Your task to perform on an android device: change notification settings in the gmail app Image 0: 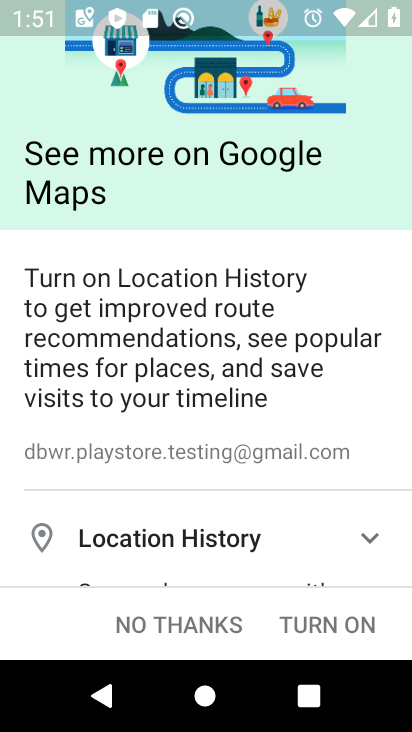
Step 0: press home button
Your task to perform on an android device: change notification settings in the gmail app Image 1: 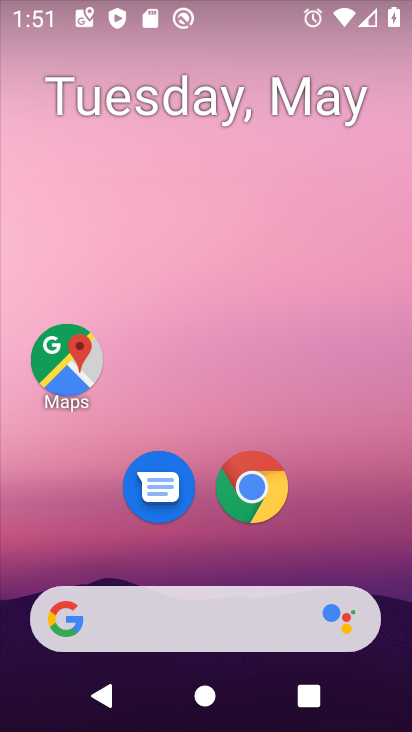
Step 1: drag from (364, 534) to (366, 108)
Your task to perform on an android device: change notification settings in the gmail app Image 2: 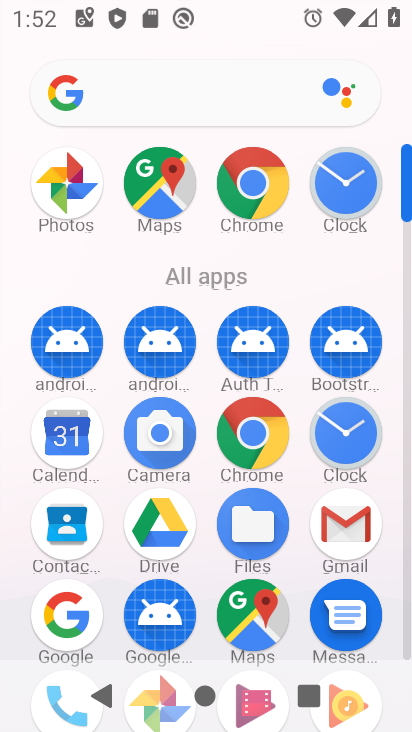
Step 2: click (341, 529)
Your task to perform on an android device: change notification settings in the gmail app Image 3: 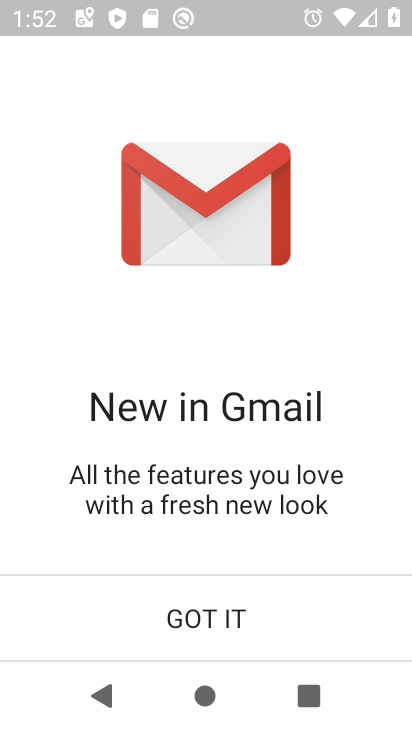
Step 3: click (245, 616)
Your task to perform on an android device: change notification settings in the gmail app Image 4: 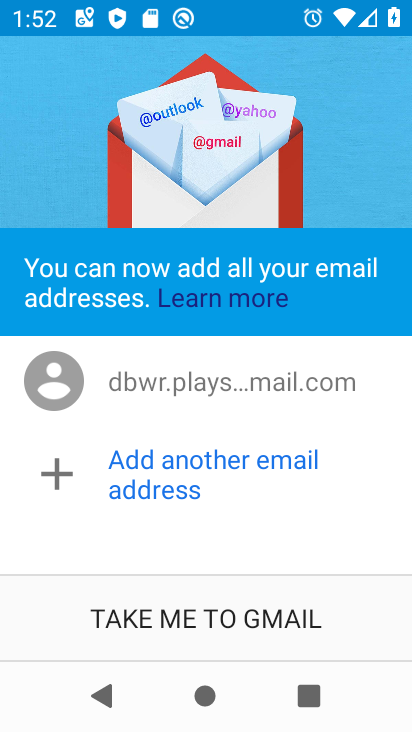
Step 4: click (257, 622)
Your task to perform on an android device: change notification settings in the gmail app Image 5: 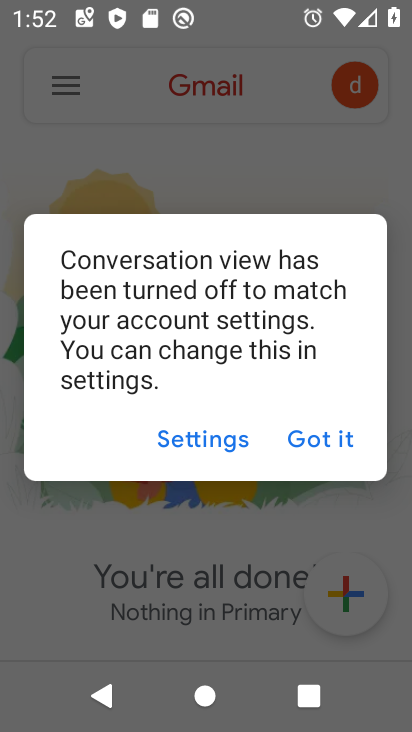
Step 5: click (310, 442)
Your task to perform on an android device: change notification settings in the gmail app Image 6: 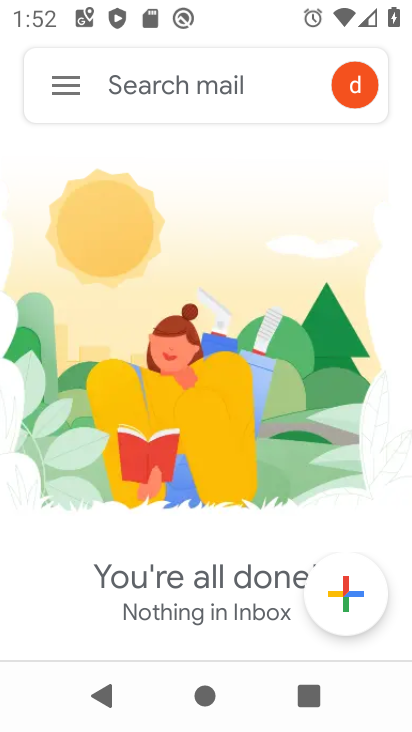
Step 6: click (74, 95)
Your task to perform on an android device: change notification settings in the gmail app Image 7: 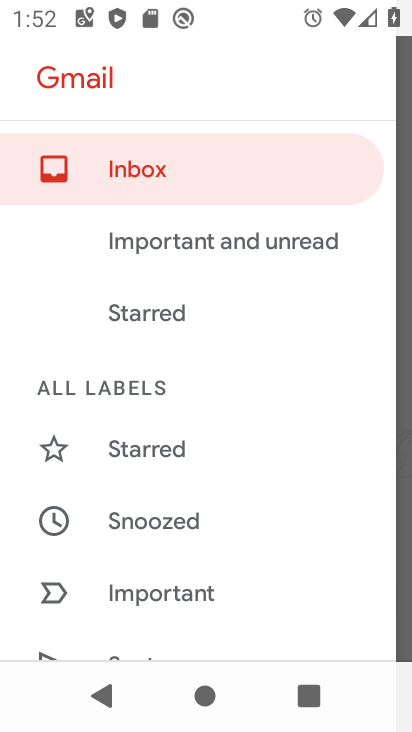
Step 7: drag from (307, 425) to (324, 342)
Your task to perform on an android device: change notification settings in the gmail app Image 8: 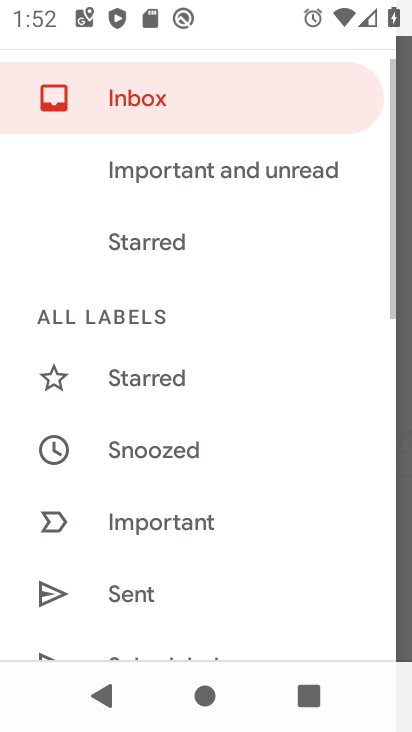
Step 8: drag from (324, 472) to (334, 366)
Your task to perform on an android device: change notification settings in the gmail app Image 9: 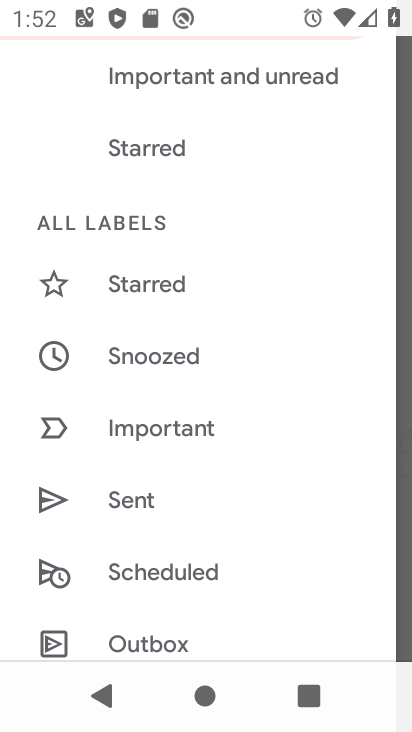
Step 9: drag from (321, 504) to (333, 401)
Your task to perform on an android device: change notification settings in the gmail app Image 10: 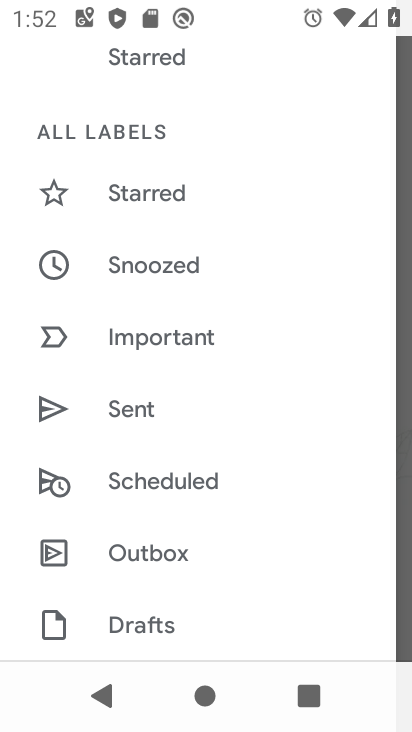
Step 10: drag from (332, 532) to (341, 415)
Your task to perform on an android device: change notification settings in the gmail app Image 11: 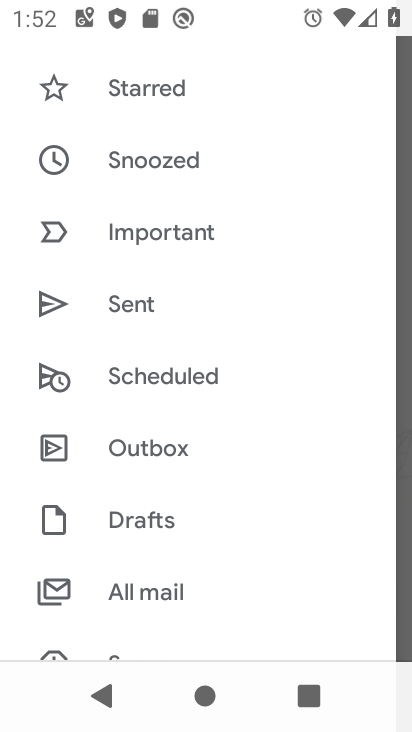
Step 11: drag from (343, 538) to (346, 413)
Your task to perform on an android device: change notification settings in the gmail app Image 12: 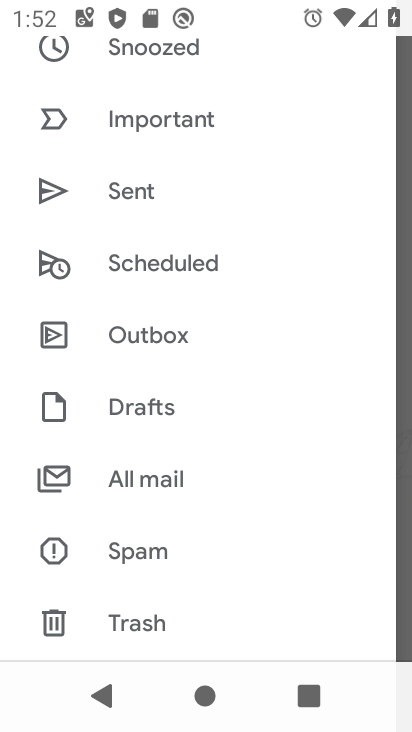
Step 12: drag from (275, 555) to (273, 422)
Your task to perform on an android device: change notification settings in the gmail app Image 13: 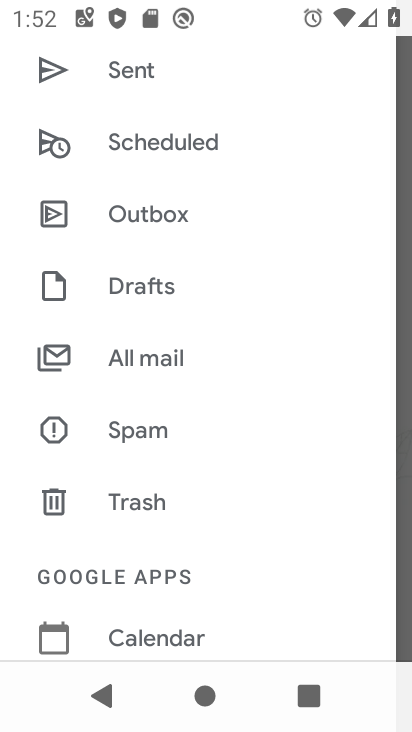
Step 13: drag from (291, 557) to (297, 357)
Your task to perform on an android device: change notification settings in the gmail app Image 14: 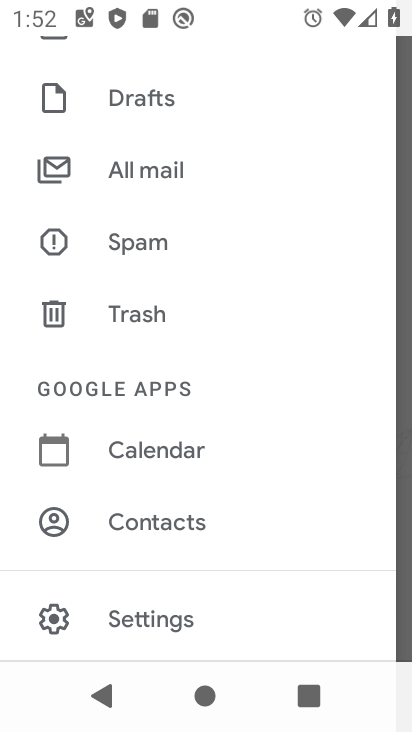
Step 14: drag from (280, 592) to (266, 380)
Your task to perform on an android device: change notification settings in the gmail app Image 15: 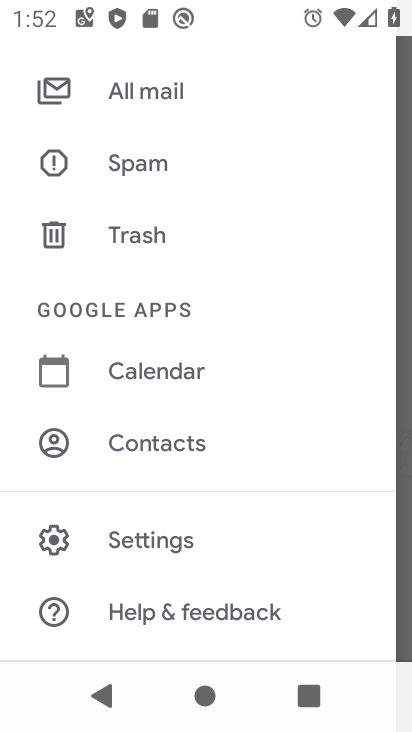
Step 15: click (224, 545)
Your task to perform on an android device: change notification settings in the gmail app Image 16: 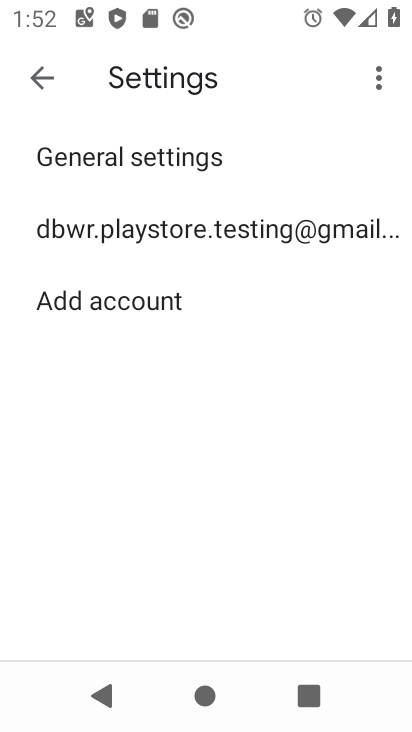
Step 16: click (256, 230)
Your task to perform on an android device: change notification settings in the gmail app Image 17: 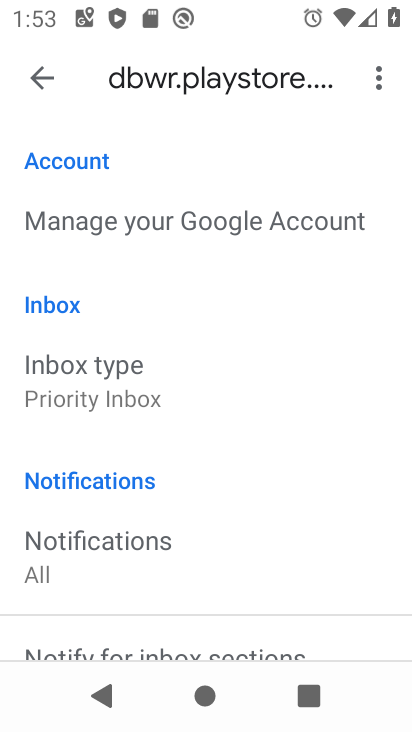
Step 17: drag from (302, 479) to (300, 264)
Your task to perform on an android device: change notification settings in the gmail app Image 18: 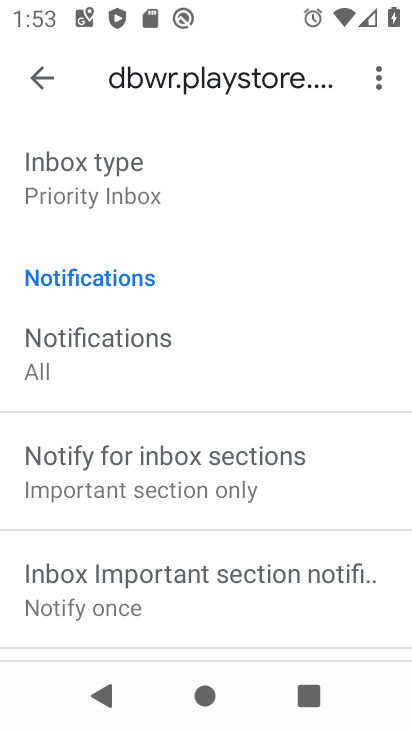
Step 18: click (131, 344)
Your task to perform on an android device: change notification settings in the gmail app Image 19: 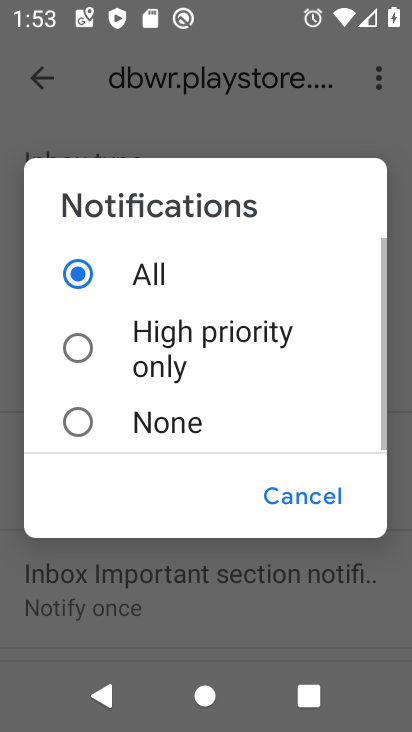
Step 19: click (148, 368)
Your task to perform on an android device: change notification settings in the gmail app Image 20: 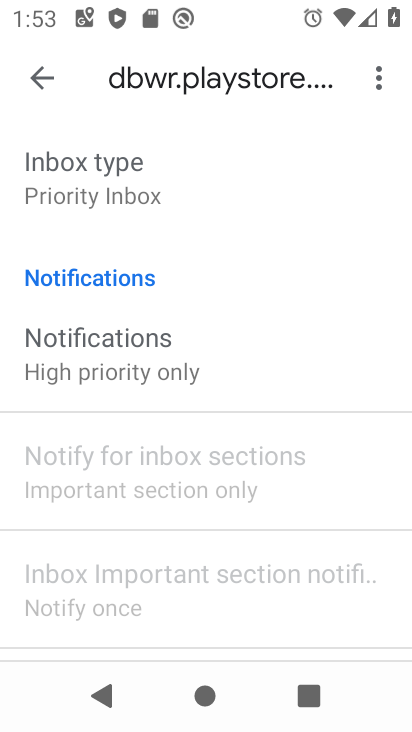
Step 20: task complete